Your task to perform on an android device: toggle location history Image 0: 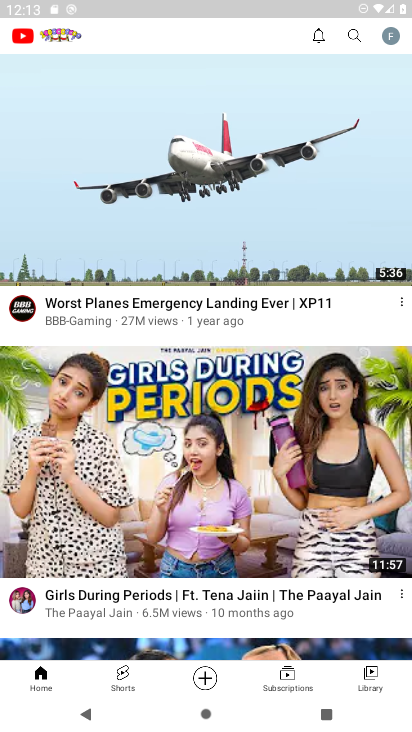
Step 0: press home button
Your task to perform on an android device: toggle location history Image 1: 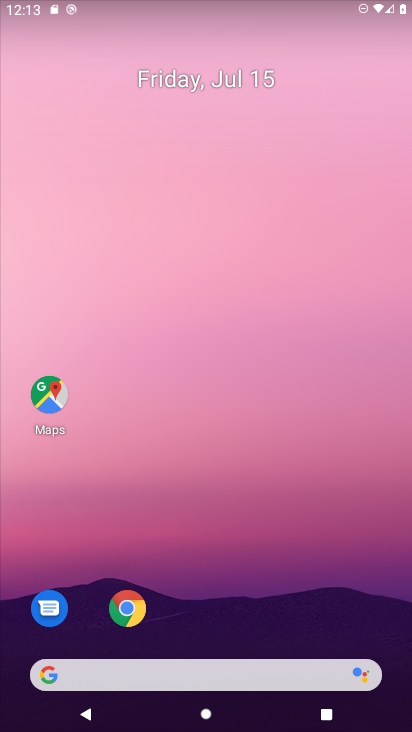
Step 1: drag from (125, 665) to (211, 10)
Your task to perform on an android device: toggle location history Image 2: 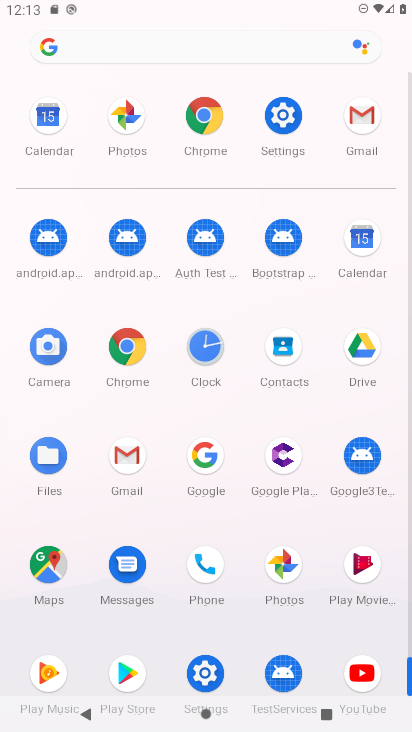
Step 2: click (286, 108)
Your task to perform on an android device: toggle location history Image 3: 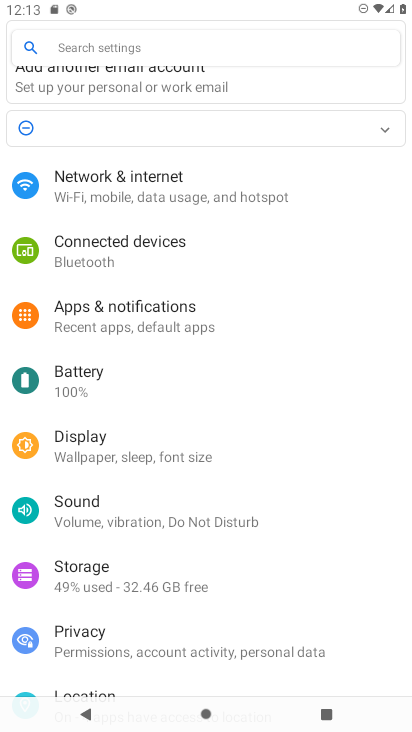
Step 3: click (96, 684)
Your task to perform on an android device: toggle location history Image 4: 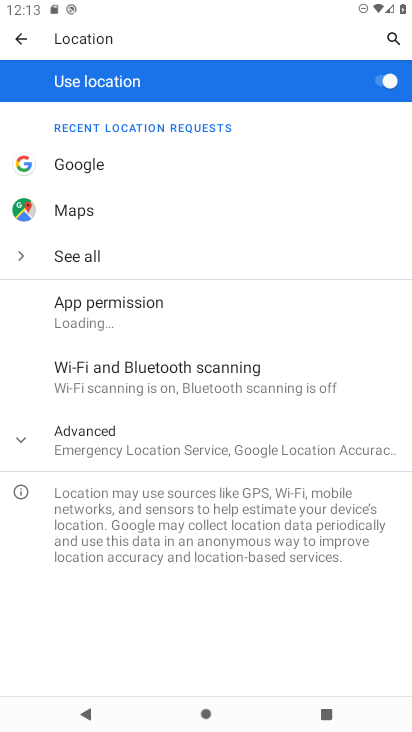
Step 4: click (117, 432)
Your task to perform on an android device: toggle location history Image 5: 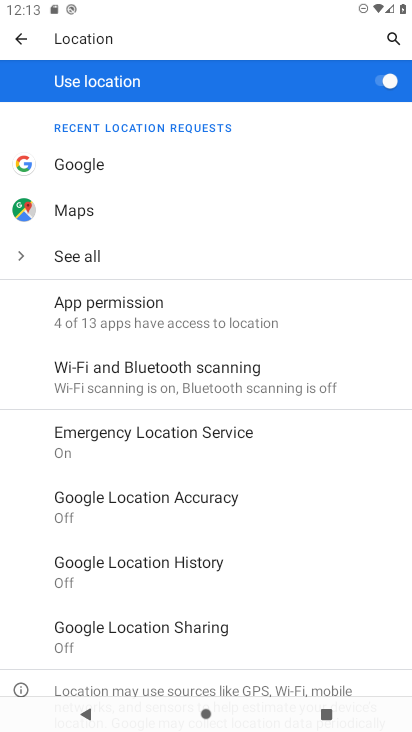
Step 5: click (151, 570)
Your task to perform on an android device: toggle location history Image 6: 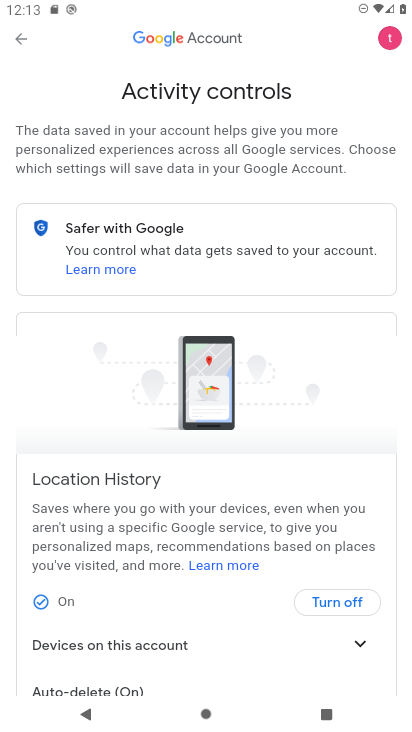
Step 6: click (344, 605)
Your task to perform on an android device: toggle location history Image 7: 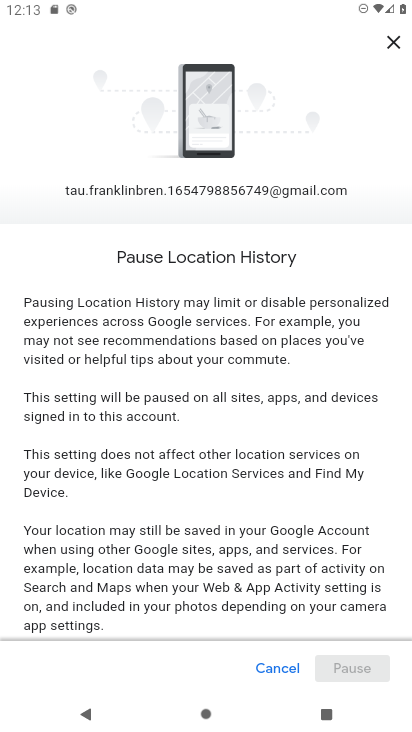
Step 7: drag from (294, 630) to (255, 236)
Your task to perform on an android device: toggle location history Image 8: 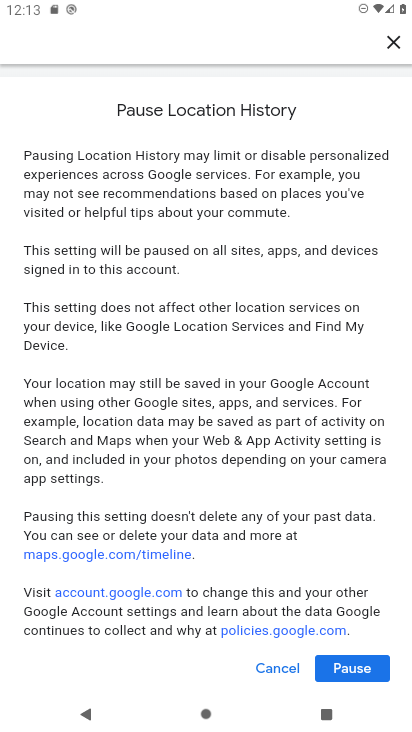
Step 8: click (376, 672)
Your task to perform on an android device: toggle location history Image 9: 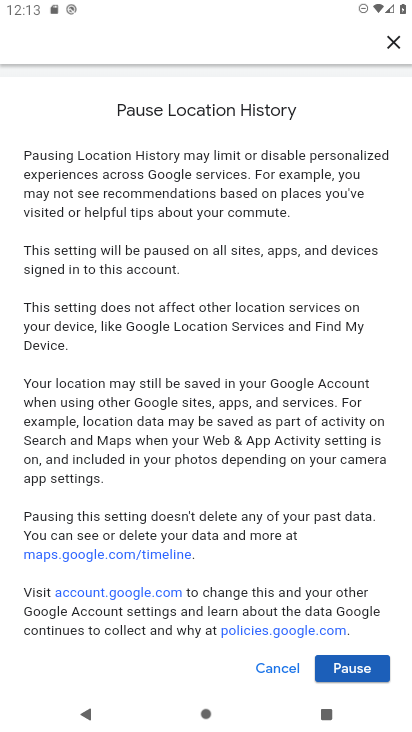
Step 9: click (368, 669)
Your task to perform on an android device: toggle location history Image 10: 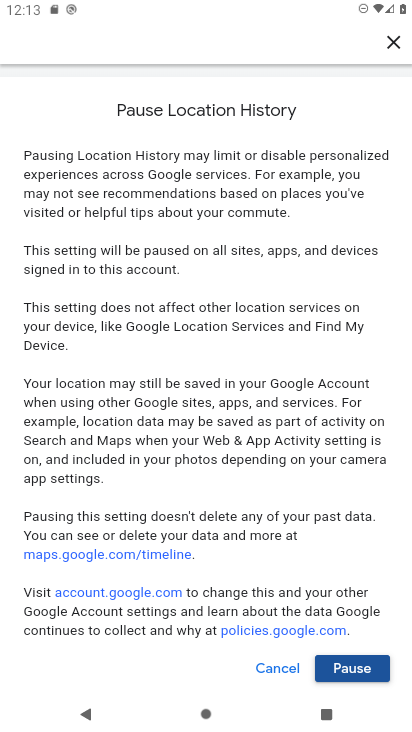
Step 10: click (361, 663)
Your task to perform on an android device: toggle location history Image 11: 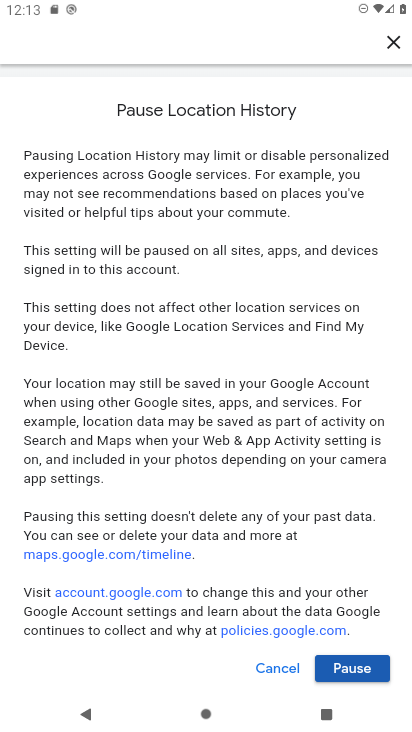
Step 11: click (361, 663)
Your task to perform on an android device: toggle location history Image 12: 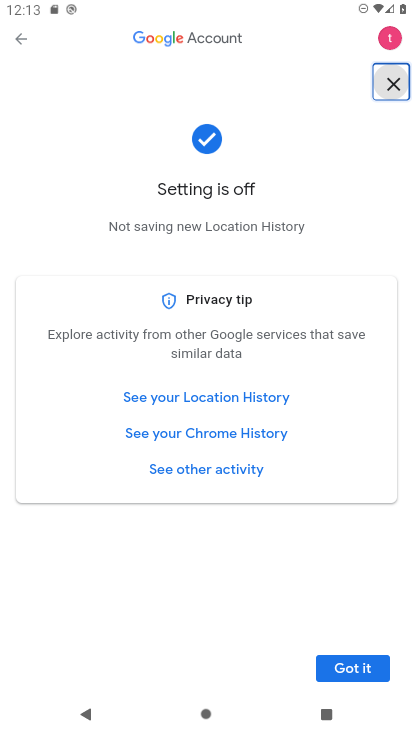
Step 12: task complete